Your task to perform on an android device: turn off location history Image 0: 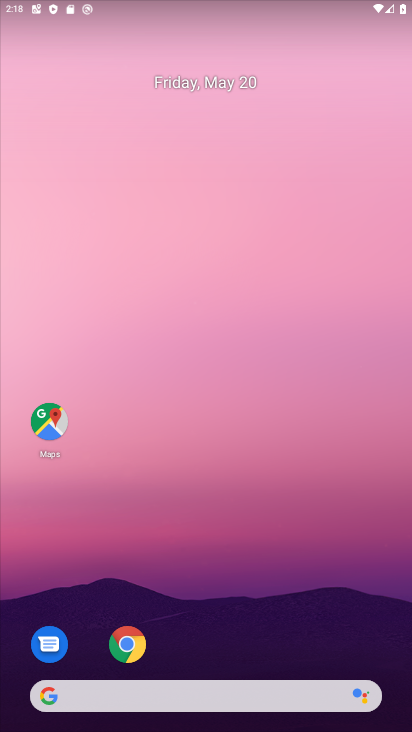
Step 0: drag from (367, 588) to (245, 105)
Your task to perform on an android device: turn off location history Image 1: 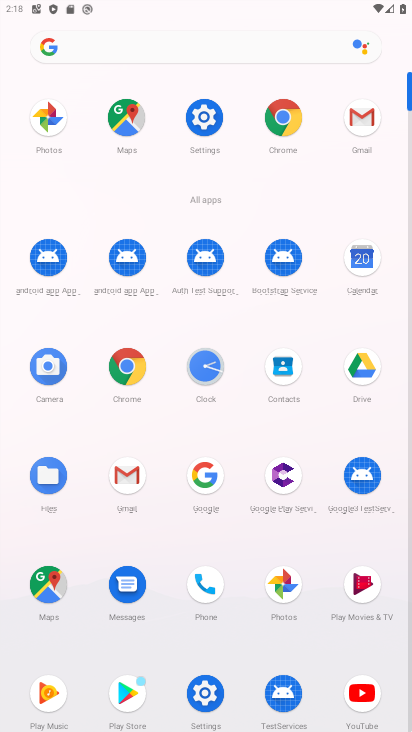
Step 1: click (208, 686)
Your task to perform on an android device: turn off location history Image 2: 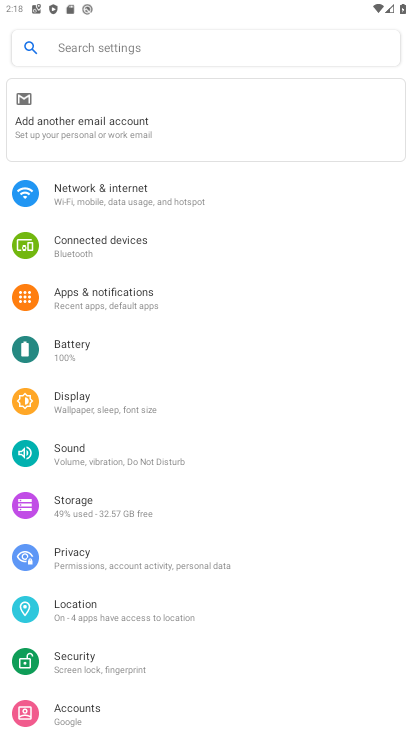
Step 2: click (131, 603)
Your task to perform on an android device: turn off location history Image 3: 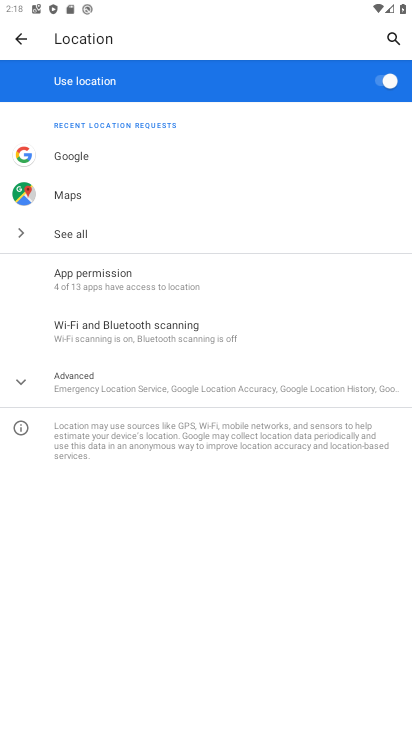
Step 3: click (244, 382)
Your task to perform on an android device: turn off location history Image 4: 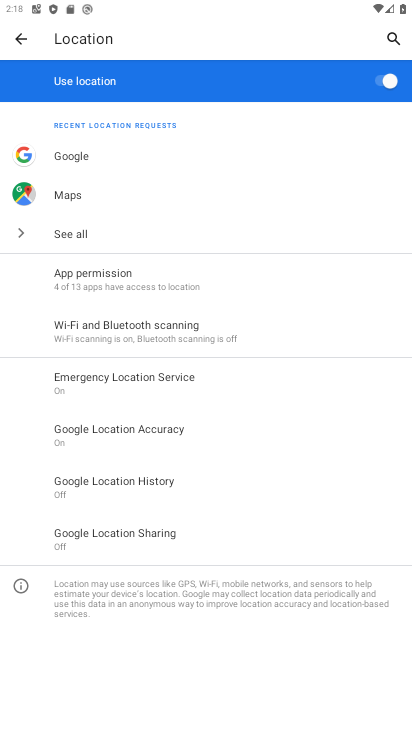
Step 4: task complete